Your task to perform on an android device: uninstall "Paramount+ | Peak Streaming" Image 0: 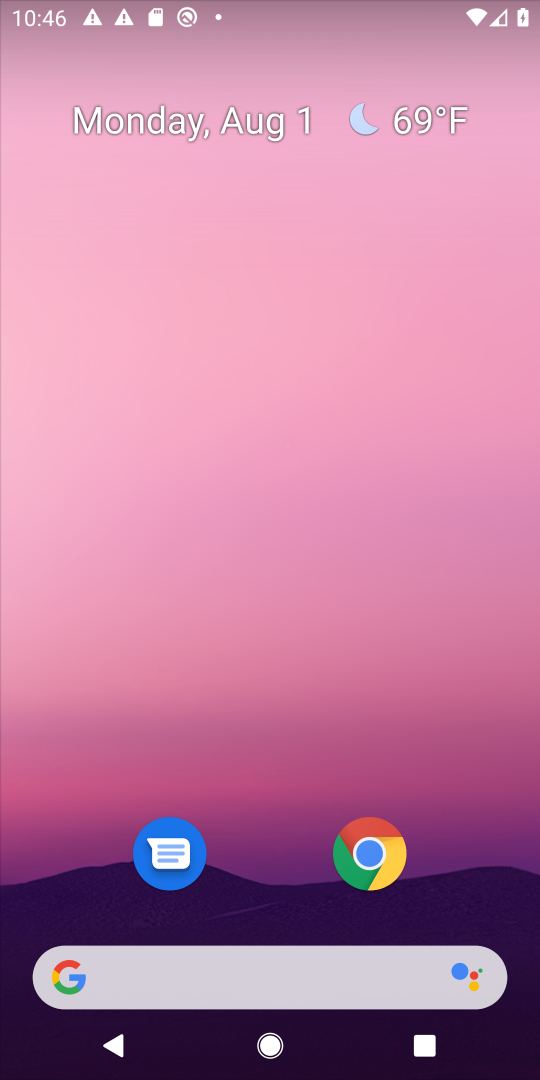
Step 0: drag from (268, 808) to (276, 272)
Your task to perform on an android device: uninstall "Paramount+ | Peak Streaming" Image 1: 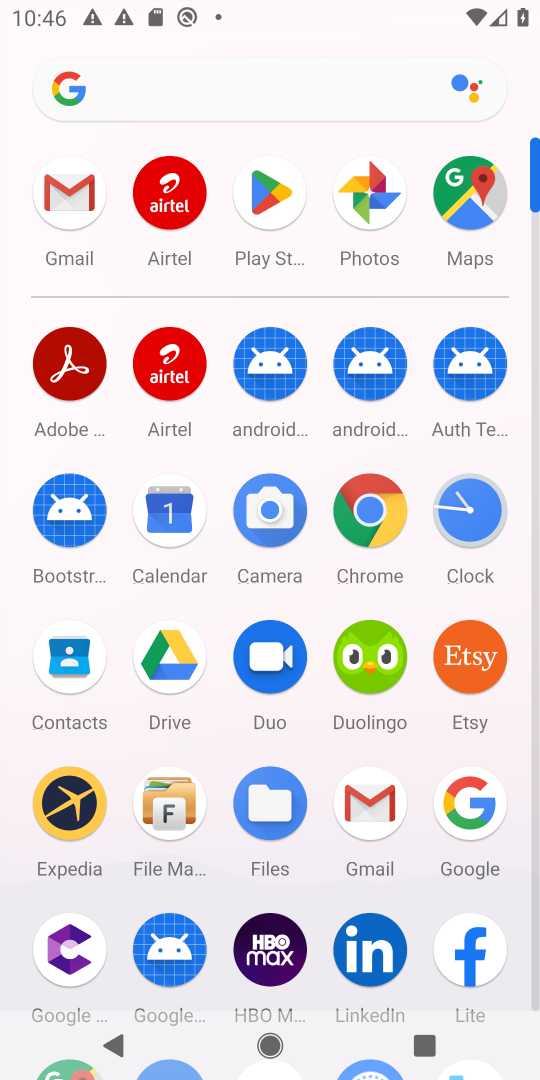
Step 1: click (276, 196)
Your task to perform on an android device: uninstall "Paramount+ | Peak Streaming" Image 2: 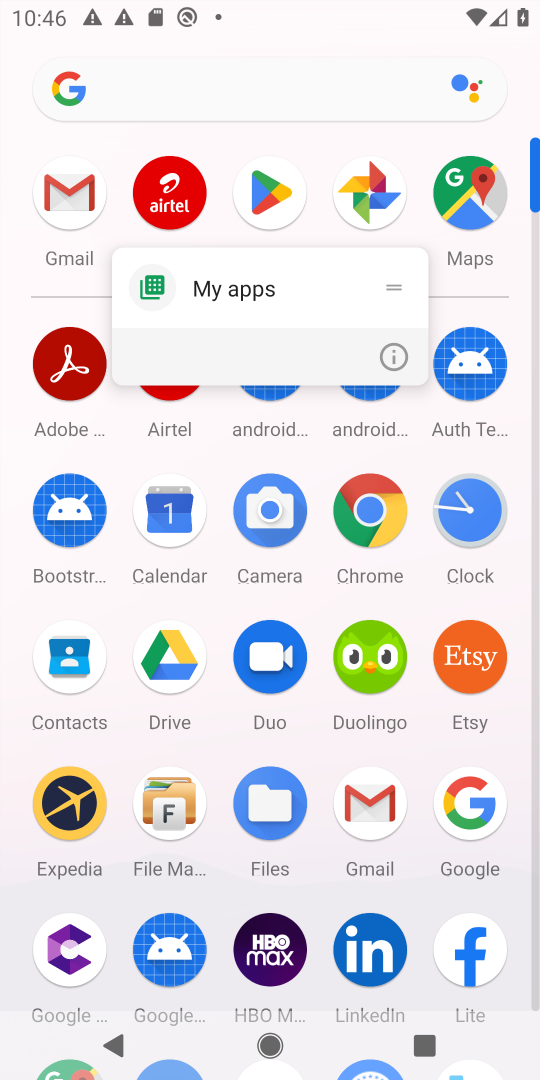
Step 2: click (398, 360)
Your task to perform on an android device: uninstall "Paramount+ | Peak Streaming" Image 3: 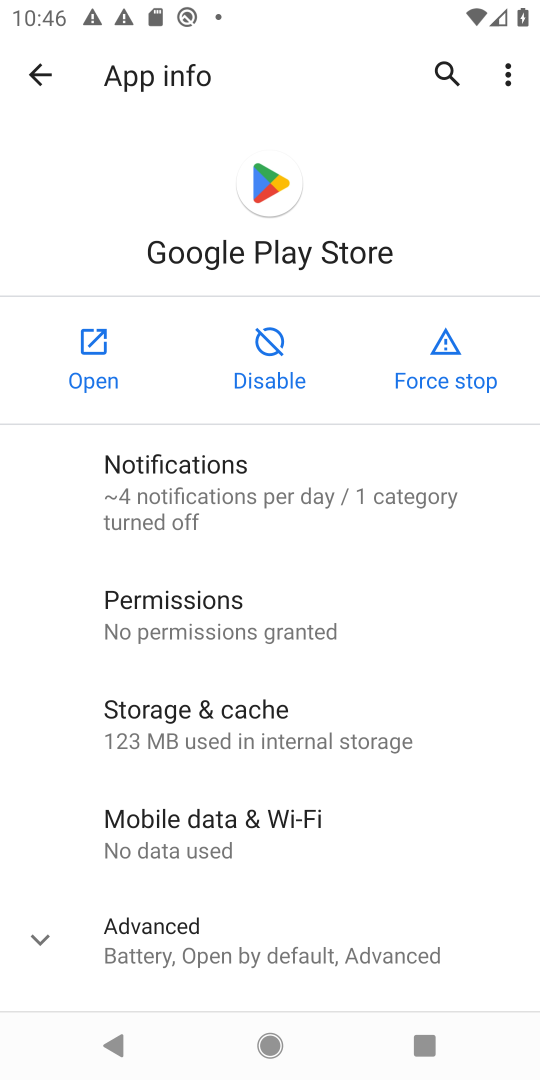
Step 3: click (84, 303)
Your task to perform on an android device: uninstall "Paramount+ | Peak Streaming" Image 4: 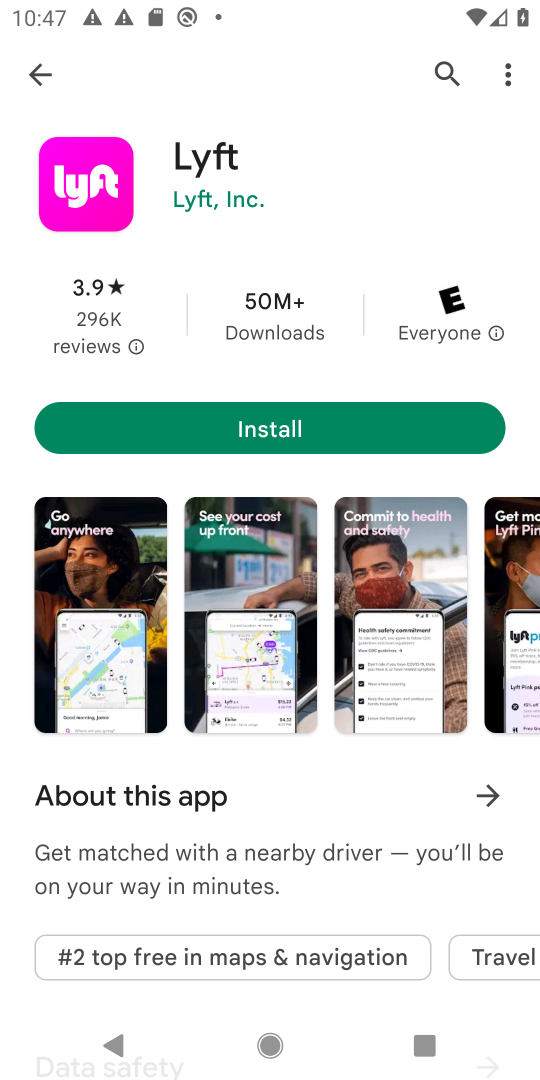
Step 4: click (440, 80)
Your task to perform on an android device: uninstall "Paramount+ | Peak Streaming" Image 5: 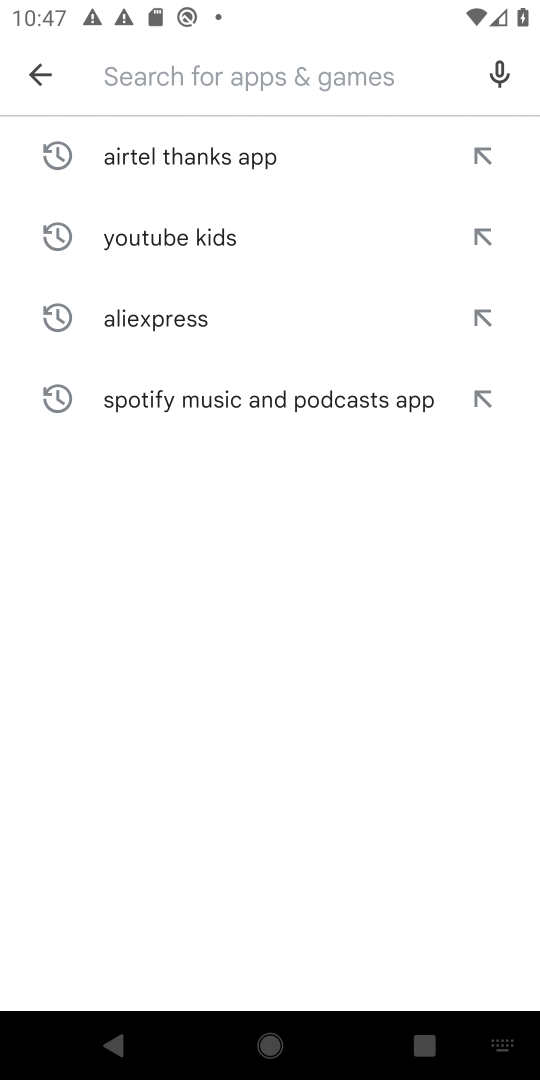
Step 5: type "Paramount+"
Your task to perform on an android device: uninstall "Paramount+ | Peak Streaming" Image 6: 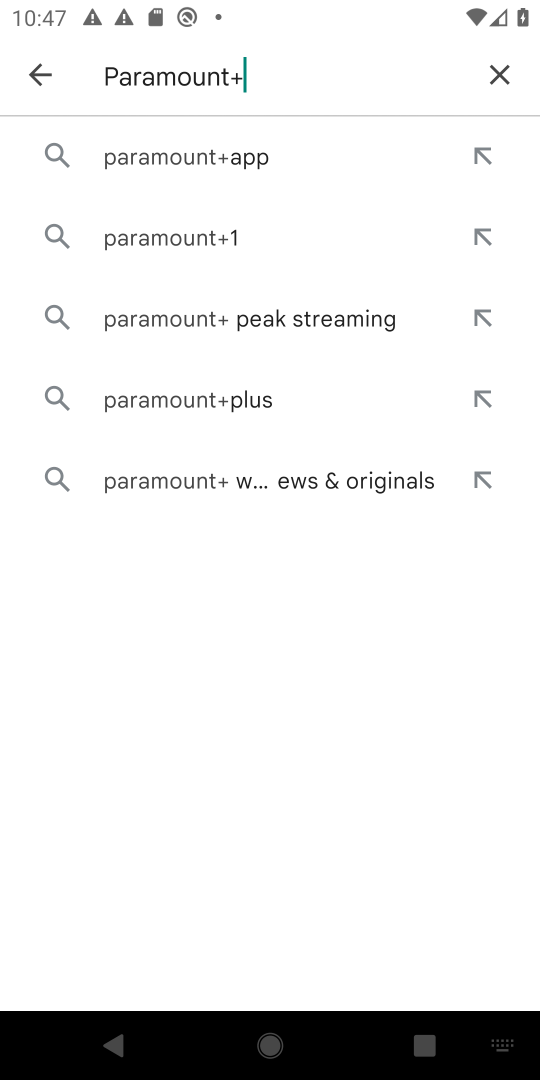
Step 6: click (240, 166)
Your task to perform on an android device: uninstall "Paramount+ | Peak Streaming" Image 7: 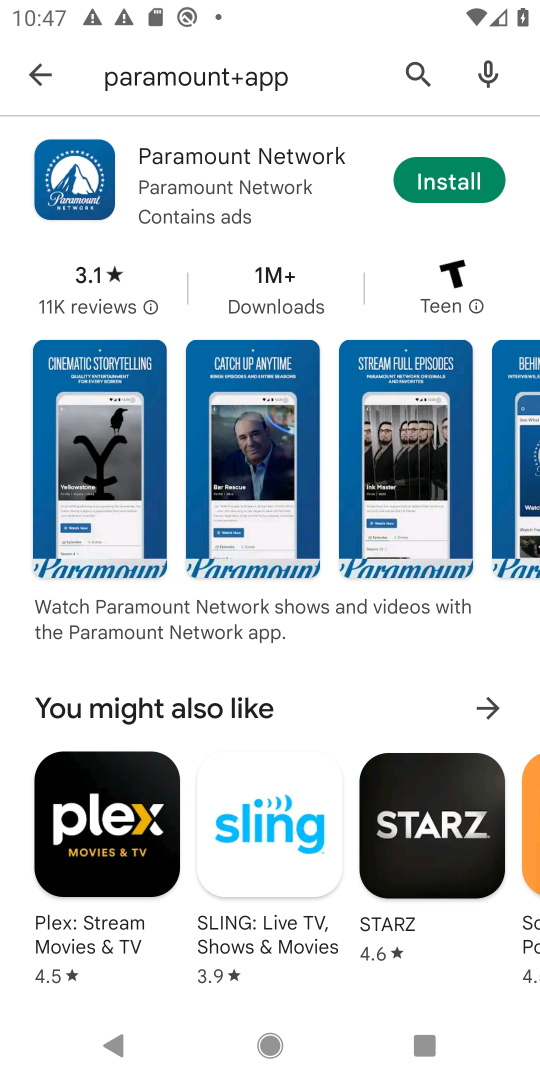
Step 7: click (410, 73)
Your task to perform on an android device: uninstall "Paramount+ | Peak Streaming" Image 8: 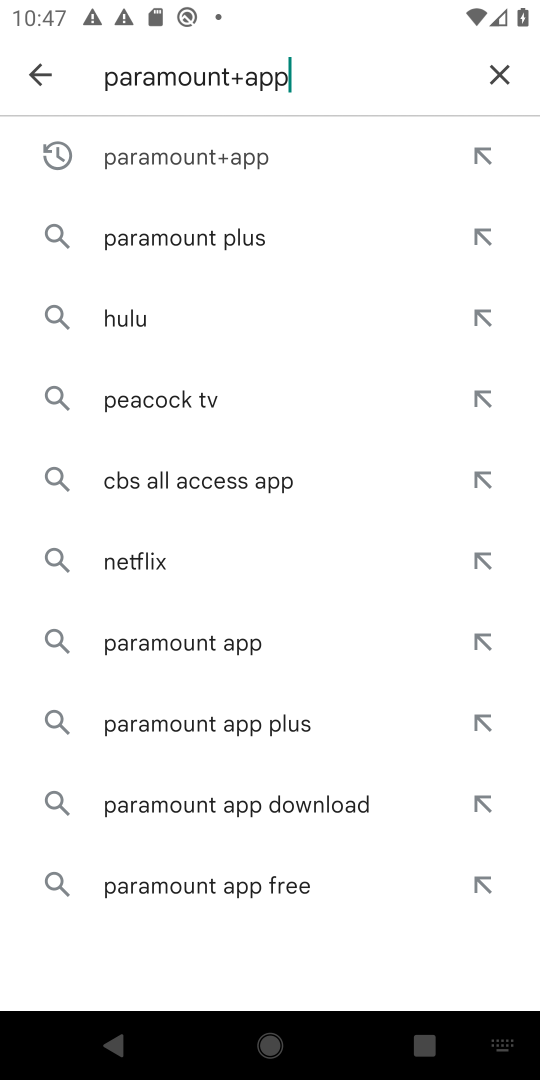
Step 8: click (491, 68)
Your task to perform on an android device: uninstall "Paramount+ | Peak Streaming" Image 9: 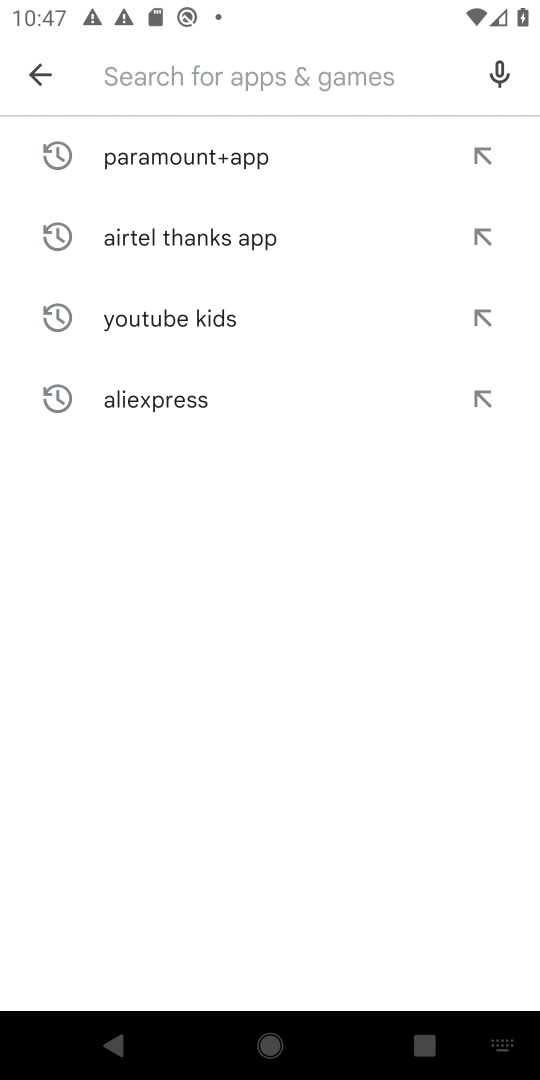
Step 9: type "Paramount+ | Peak Streaming"
Your task to perform on an android device: uninstall "Paramount+ | Peak Streaming" Image 10: 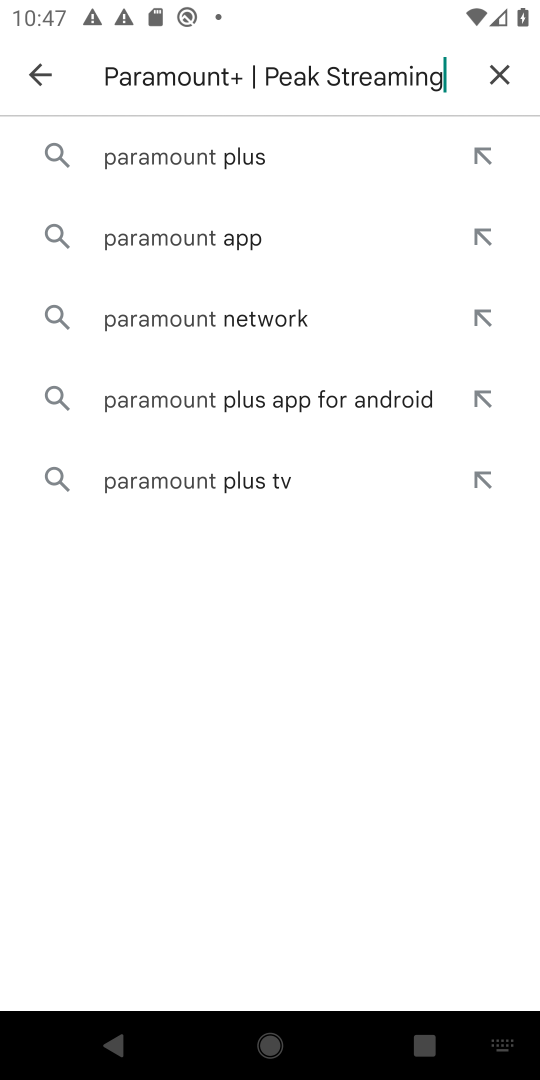
Step 10: type ""
Your task to perform on an android device: uninstall "Paramount+ | Peak Streaming" Image 11: 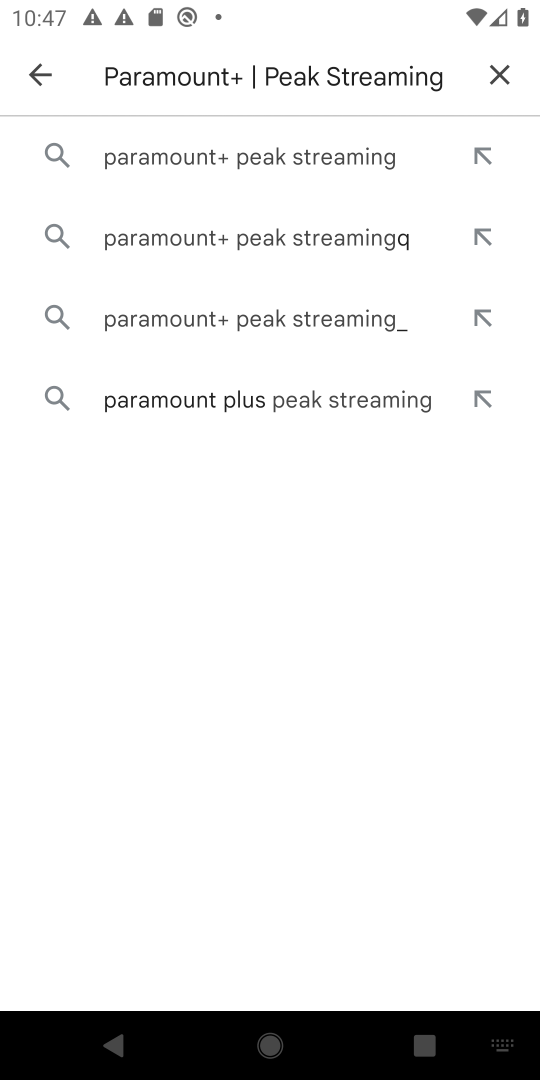
Step 11: click (217, 148)
Your task to perform on an android device: uninstall "Paramount+ | Peak Streaming" Image 12: 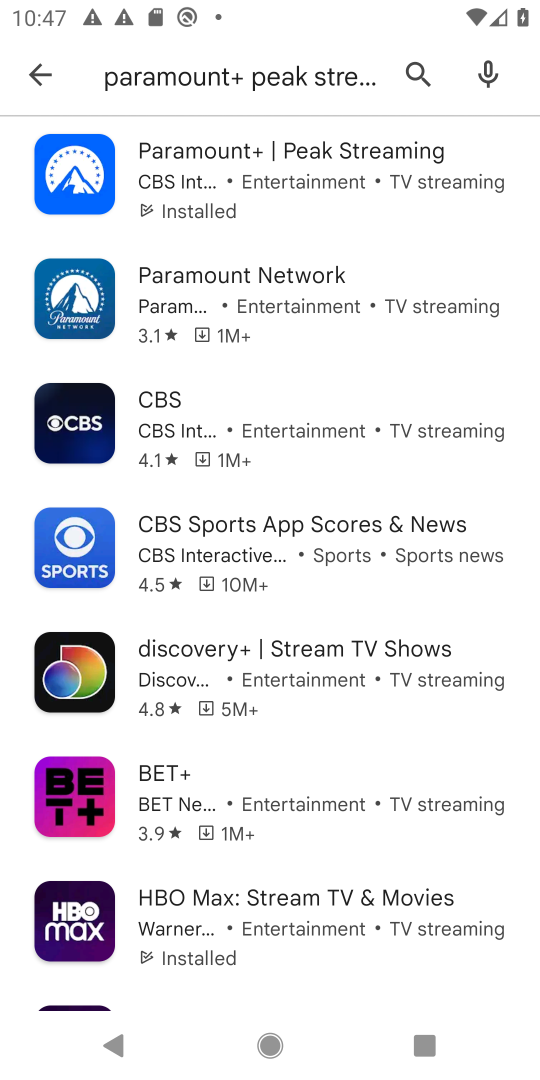
Step 12: click (196, 191)
Your task to perform on an android device: uninstall "Paramount+ | Peak Streaming" Image 13: 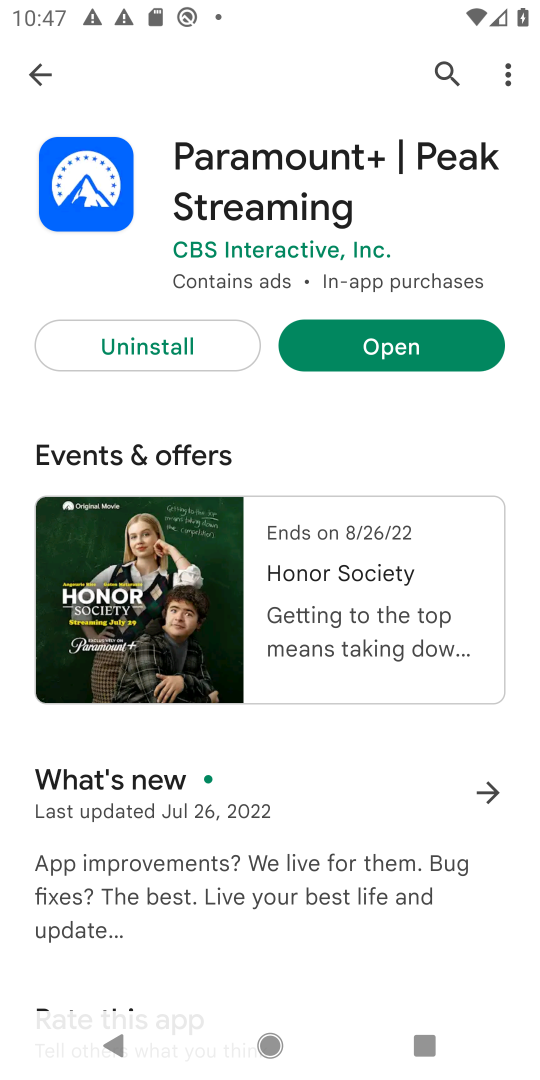
Step 13: click (205, 347)
Your task to perform on an android device: uninstall "Paramount+ | Peak Streaming" Image 14: 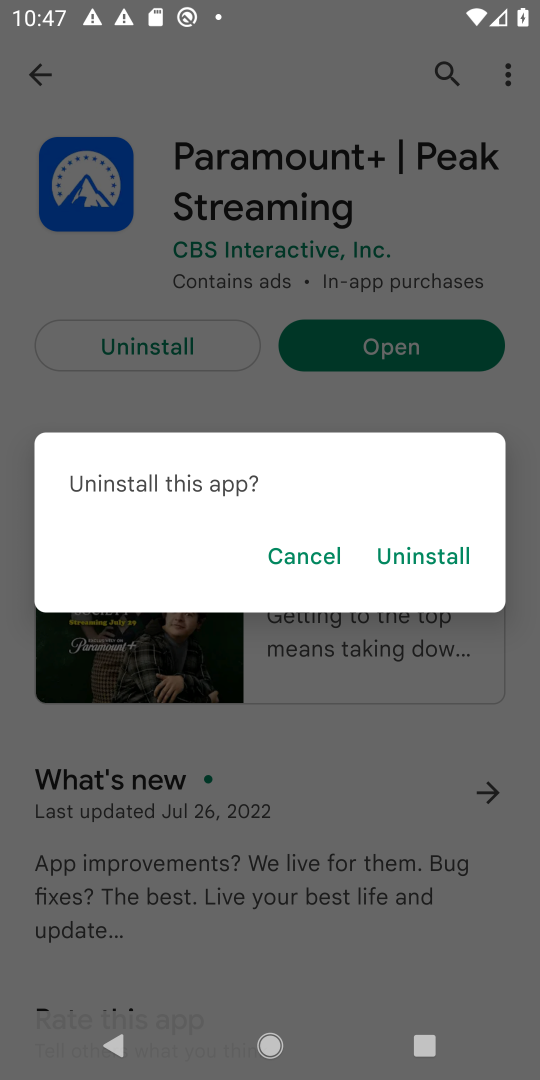
Step 14: click (403, 563)
Your task to perform on an android device: uninstall "Paramount+ | Peak Streaming" Image 15: 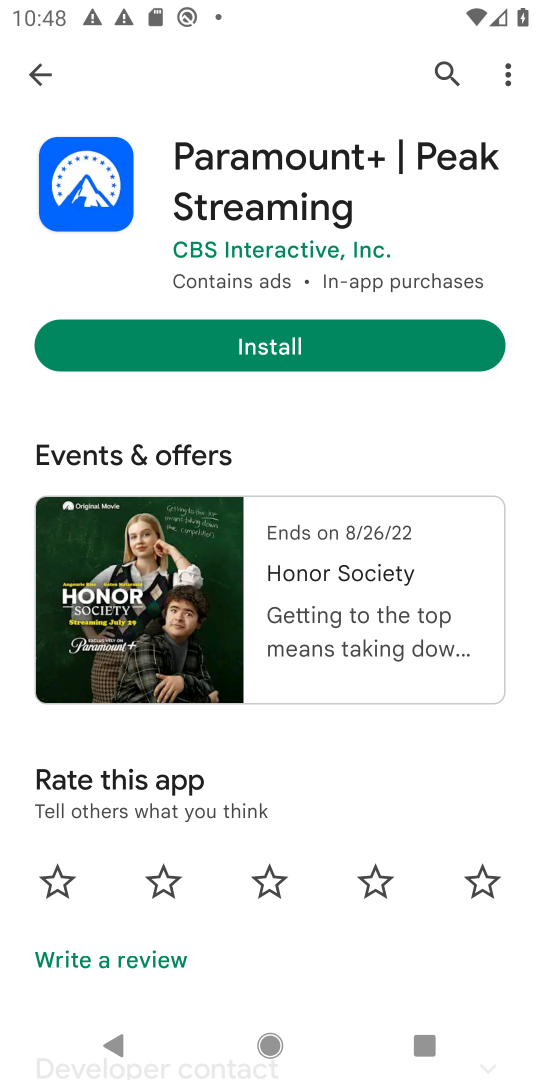
Step 15: task complete